Your task to perform on an android device: turn on the 24-hour format for clock Image 0: 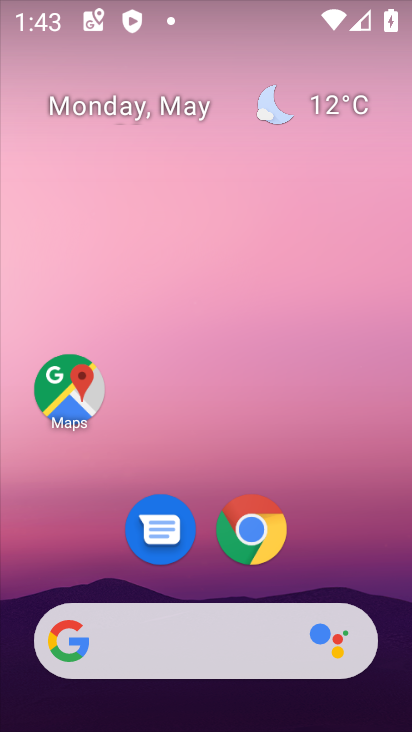
Step 0: drag from (391, 644) to (345, 68)
Your task to perform on an android device: turn on the 24-hour format for clock Image 1: 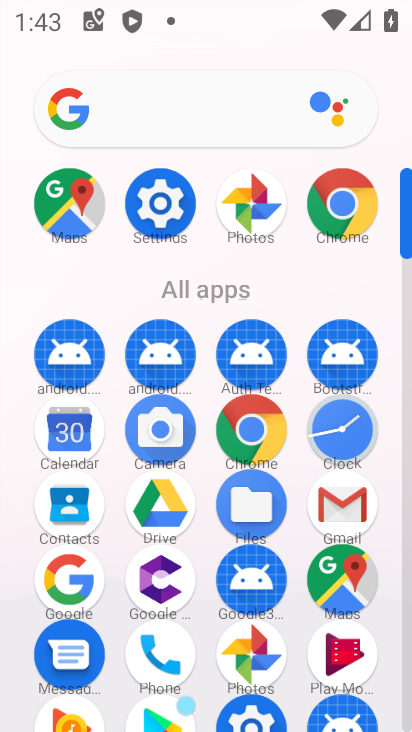
Step 1: click (404, 714)
Your task to perform on an android device: turn on the 24-hour format for clock Image 2: 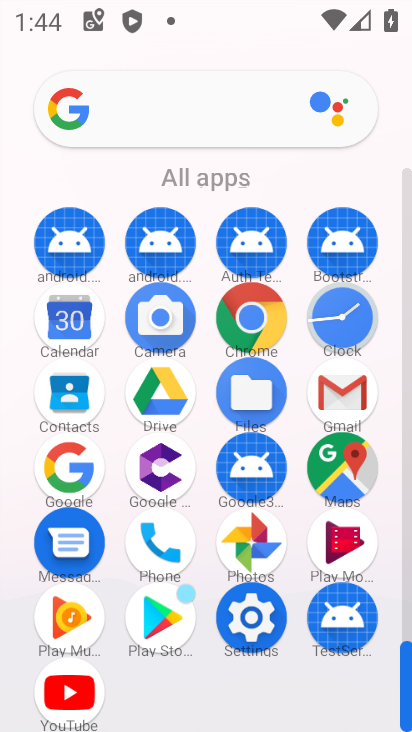
Step 2: click (341, 314)
Your task to perform on an android device: turn on the 24-hour format for clock Image 3: 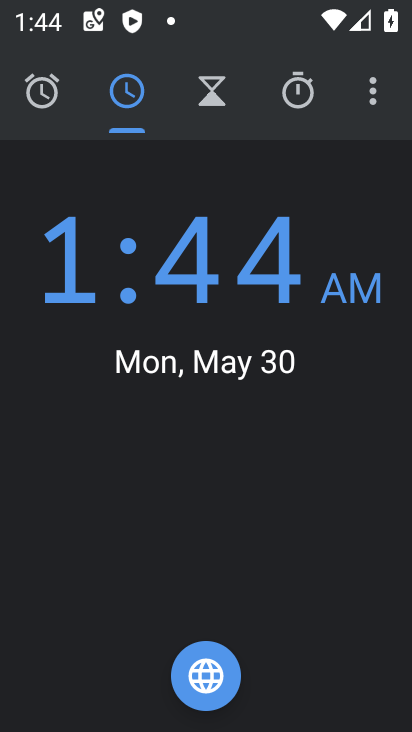
Step 3: click (371, 105)
Your task to perform on an android device: turn on the 24-hour format for clock Image 4: 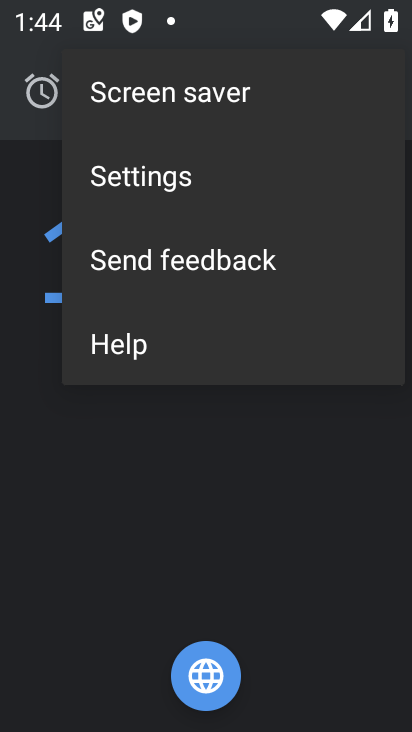
Step 4: click (163, 178)
Your task to perform on an android device: turn on the 24-hour format for clock Image 5: 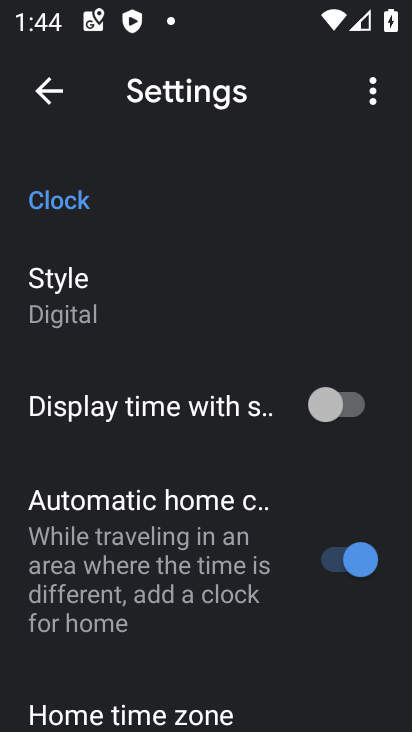
Step 5: drag from (178, 528) to (172, 175)
Your task to perform on an android device: turn on the 24-hour format for clock Image 6: 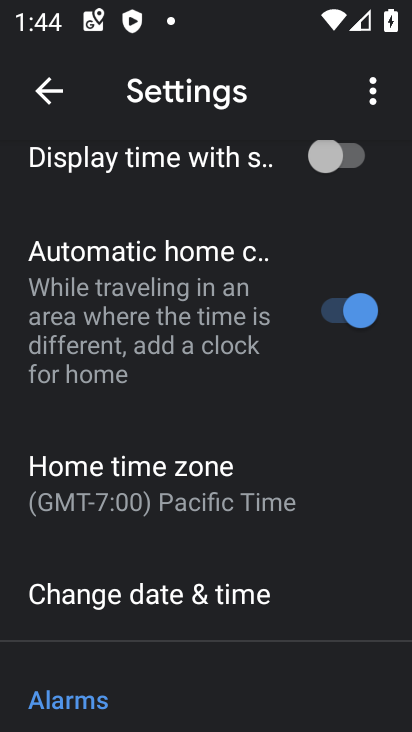
Step 6: click (191, 609)
Your task to perform on an android device: turn on the 24-hour format for clock Image 7: 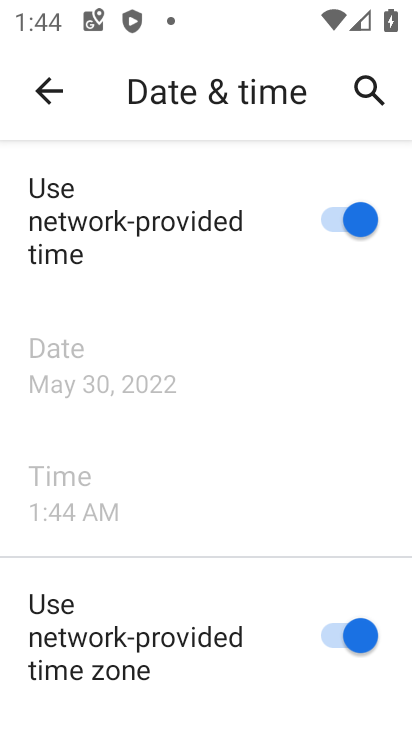
Step 7: drag from (244, 658) to (268, 189)
Your task to perform on an android device: turn on the 24-hour format for clock Image 8: 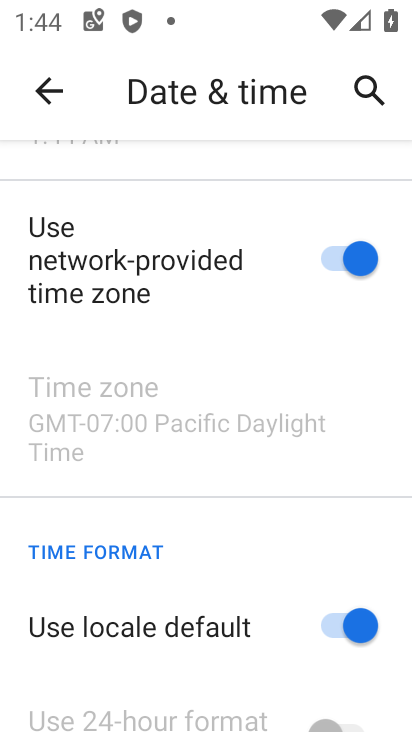
Step 8: drag from (257, 610) to (255, 372)
Your task to perform on an android device: turn on the 24-hour format for clock Image 9: 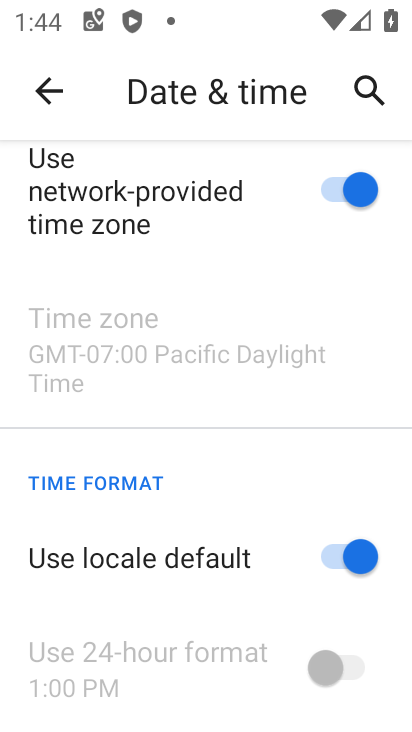
Step 9: click (328, 558)
Your task to perform on an android device: turn on the 24-hour format for clock Image 10: 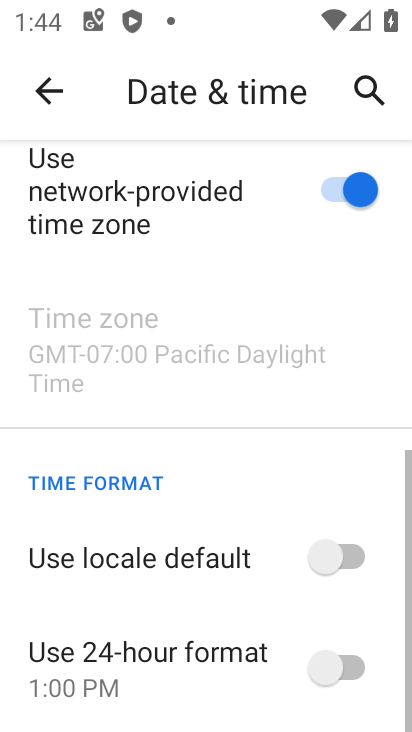
Step 10: click (359, 672)
Your task to perform on an android device: turn on the 24-hour format for clock Image 11: 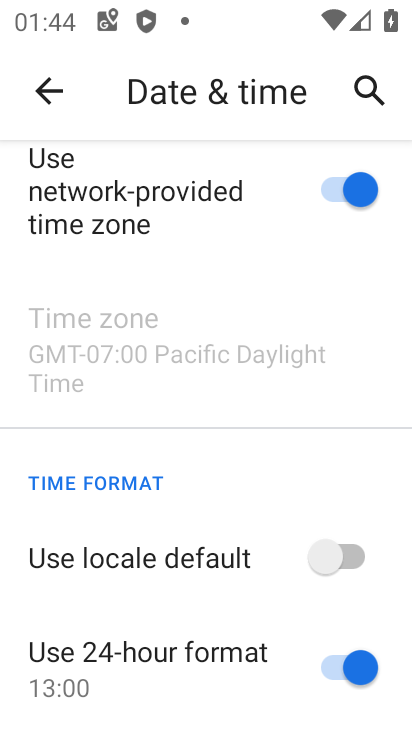
Step 11: task complete